Your task to perform on an android device: Where can I buy a nice beach blanket? Image 0: 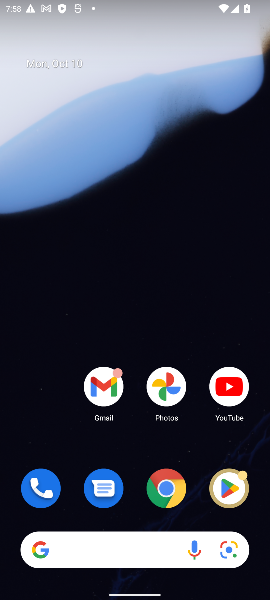
Step 0: drag from (127, 459) to (193, 162)
Your task to perform on an android device: Where can I buy a nice beach blanket? Image 1: 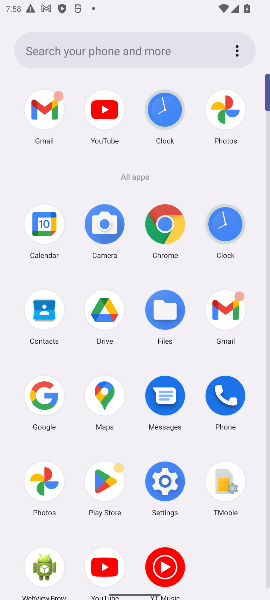
Step 1: click (162, 222)
Your task to perform on an android device: Where can I buy a nice beach blanket? Image 2: 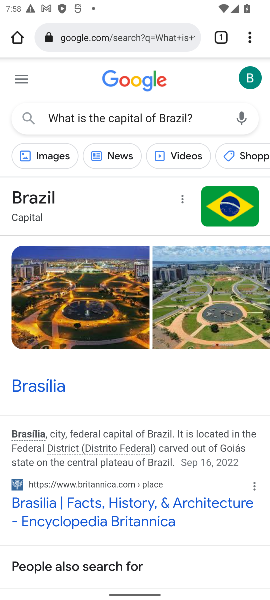
Step 2: click (113, 38)
Your task to perform on an android device: Where can I buy a nice beach blanket? Image 3: 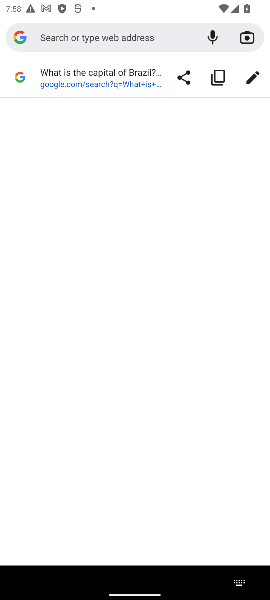
Step 3: type "Where can I buy a nice beach banket?"
Your task to perform on an android device: Where can I buy a nice beach blanket? Image 4: 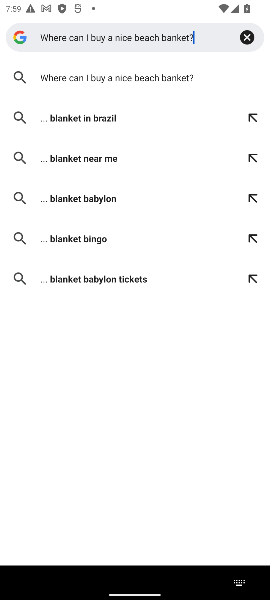
Step 4: press enter
Your task to perform on an android device: Where can I buy a nice beach blanket? Image 5: 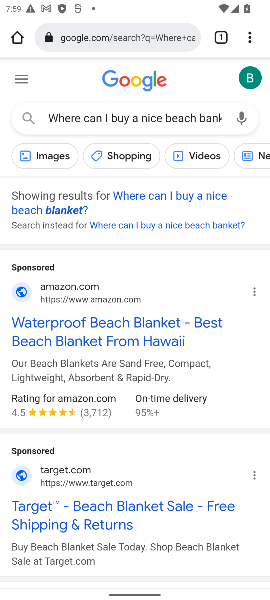
Step 5: task complete